Your task to perform on an android device: Play the latest video from the Washington Post Image 0: 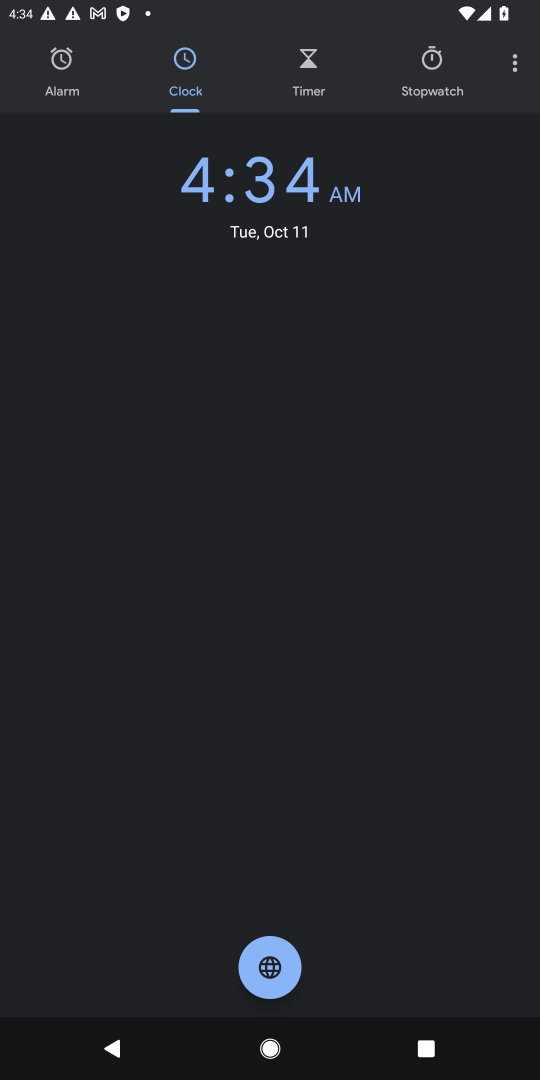
Step 0: press home button
Your task to perform on an android device: Play the latest video from the Washington Post Image 1: 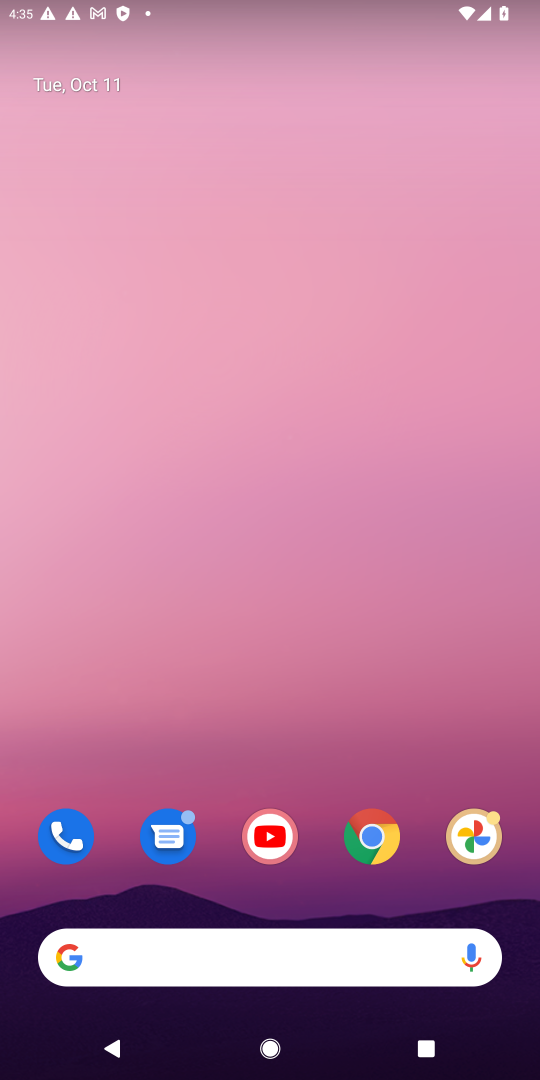
Step 1: click (266, 850)
Your task to perform on an android device: Play the latest video from the Washington Post Image 2: 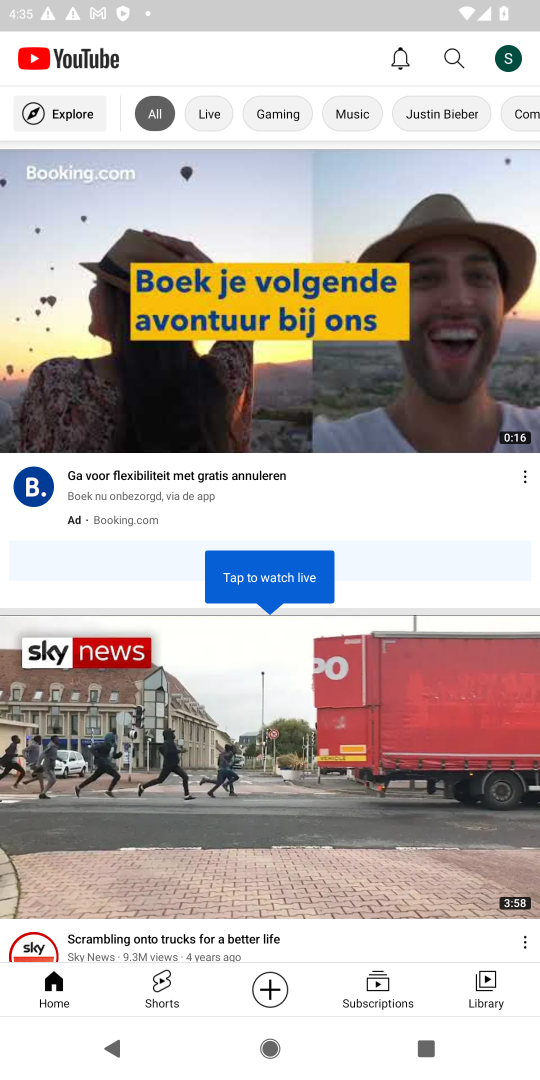
Step 2: click (467, 41)
Your task to perform on an android device: Play the latest video from the Washington Post Image 3: 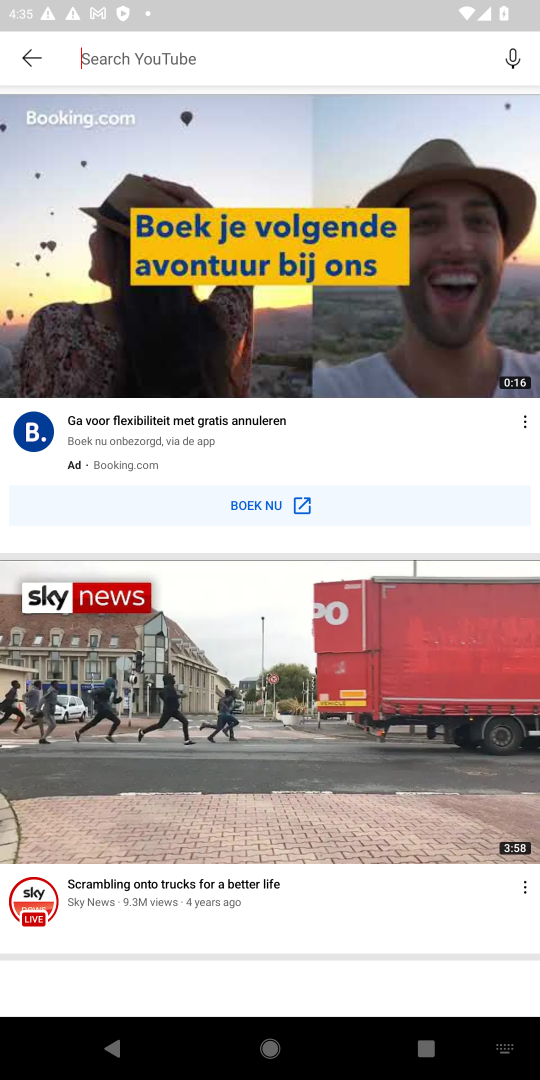
Step 3: click (455, 57)
Your task to perform on an android device: Play the latest video from the Washington Post Image 4: 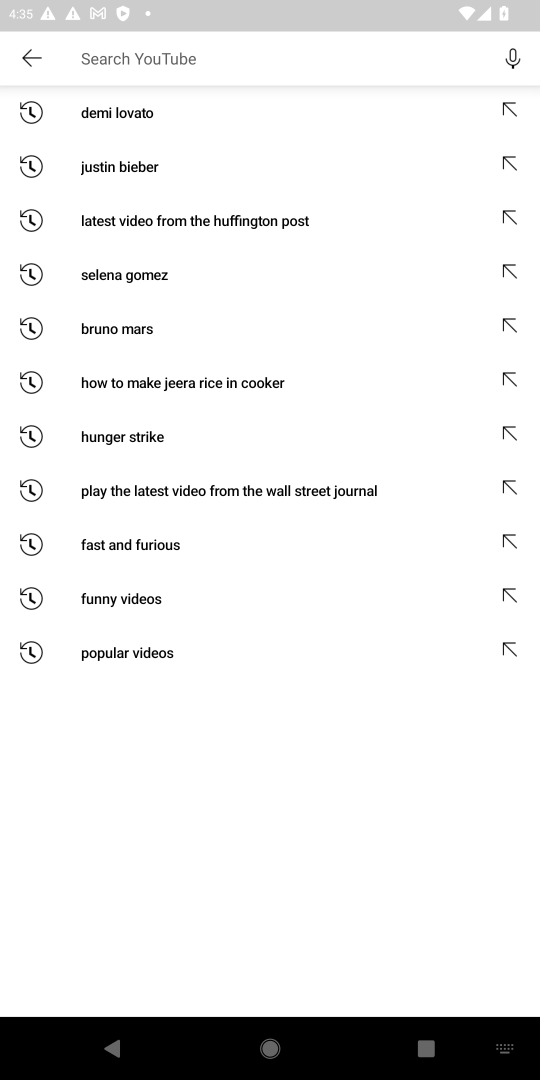
Step 4: click (386, 1075)
Your task to perform on an android device: Play the latest video from the Washington Post Image 5: 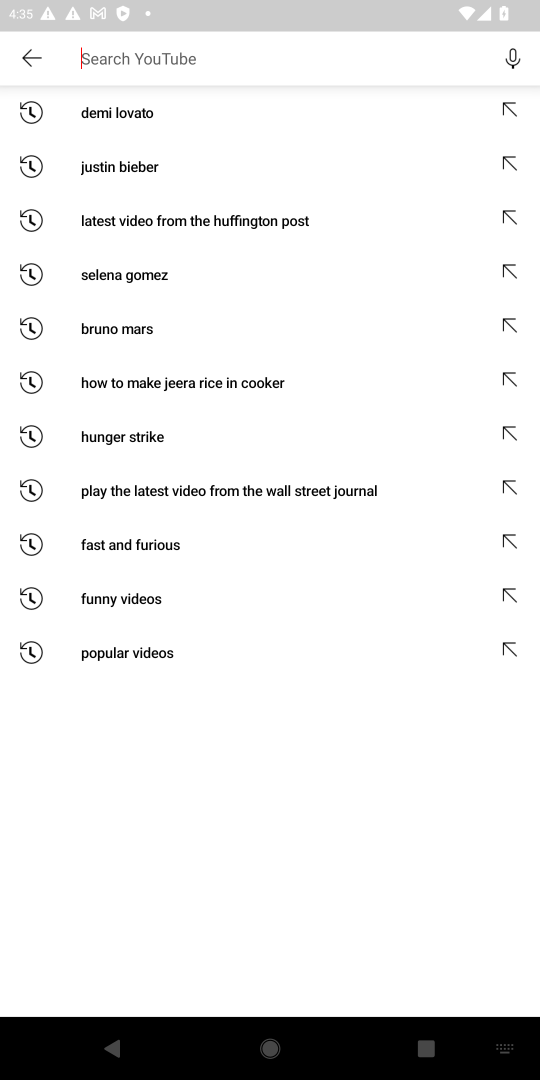
Step 5: type "latest video from the Washington Post"
Your task to perform on an android device: Play the latest video from the Washington Post Image 6: 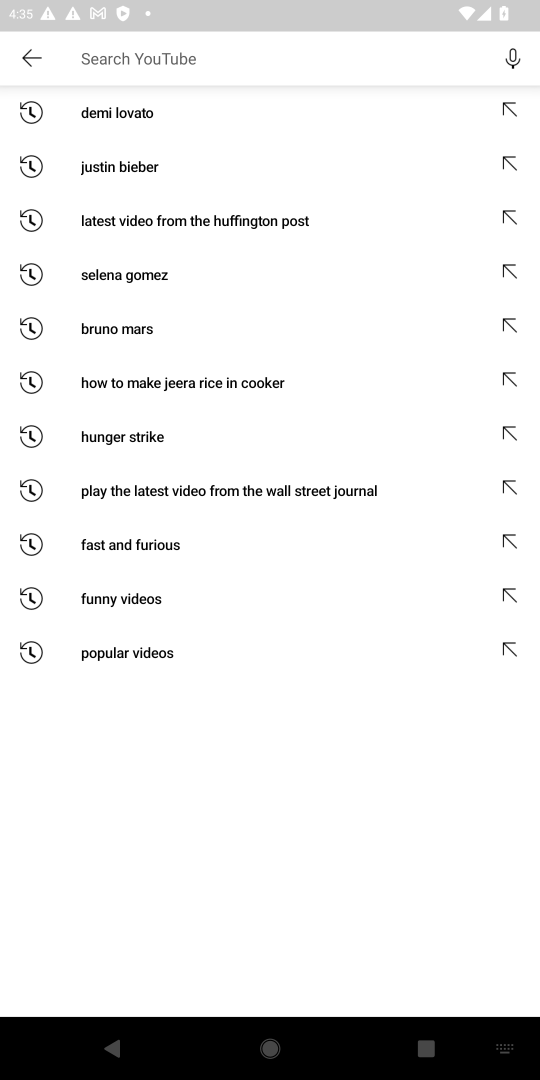
Step 6: click (504, 459)
Your task to perform on an android device: Play the latest video from the Washington Post Image 7: 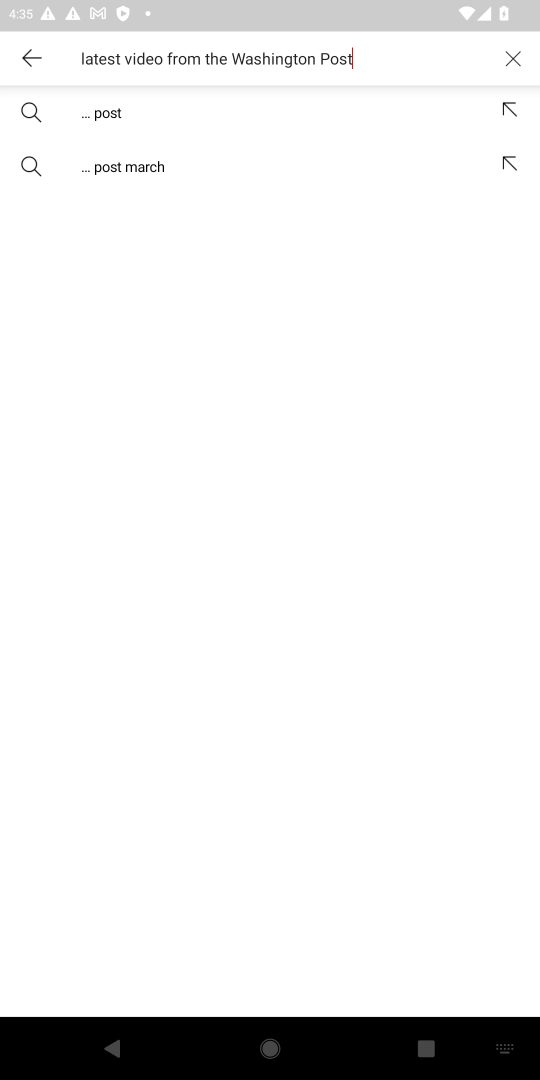
Step 7: press enter
Your task to perform on an android device: Play the latest video from the Washington Post Image 8: 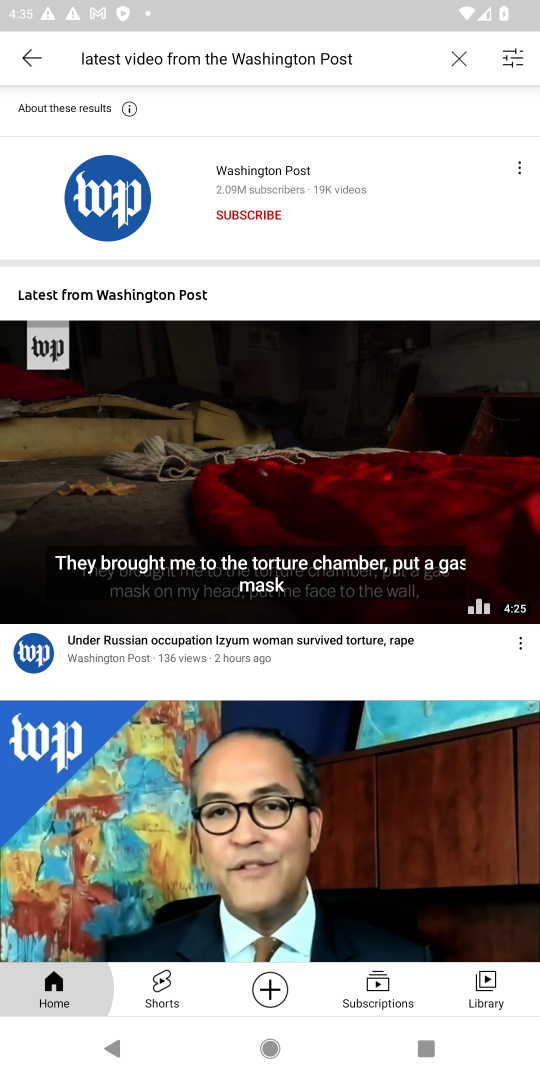
Step 8: drag from (90, 843) to (358, 315)
Your task to perform on an android device: Play the latest video from the Washington Post Image 9: 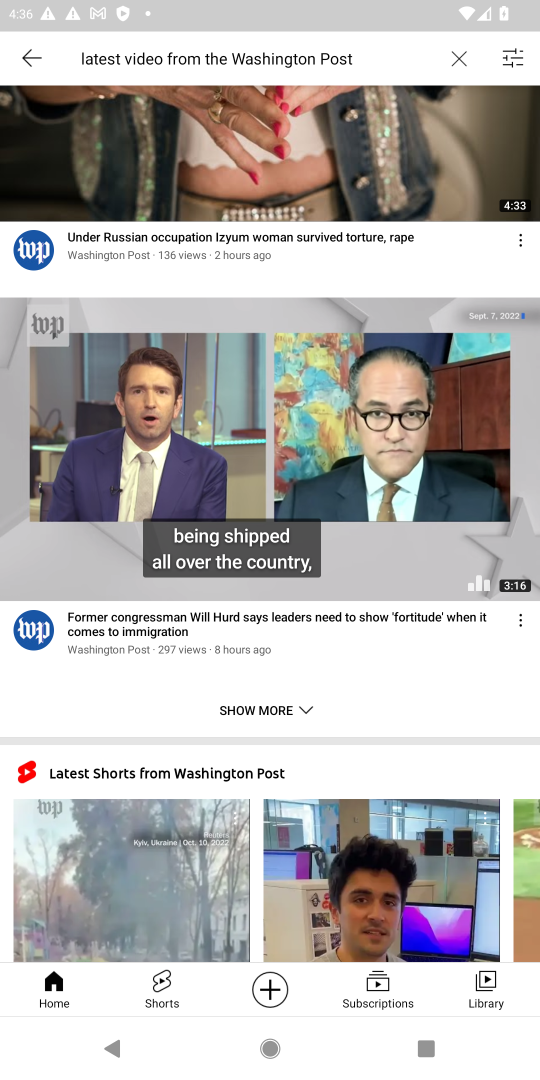
Step 9: drag from (216, 771) to (435, 120)
Your task to perform on an android device: Play the latest video from the Washington Post Image 10: 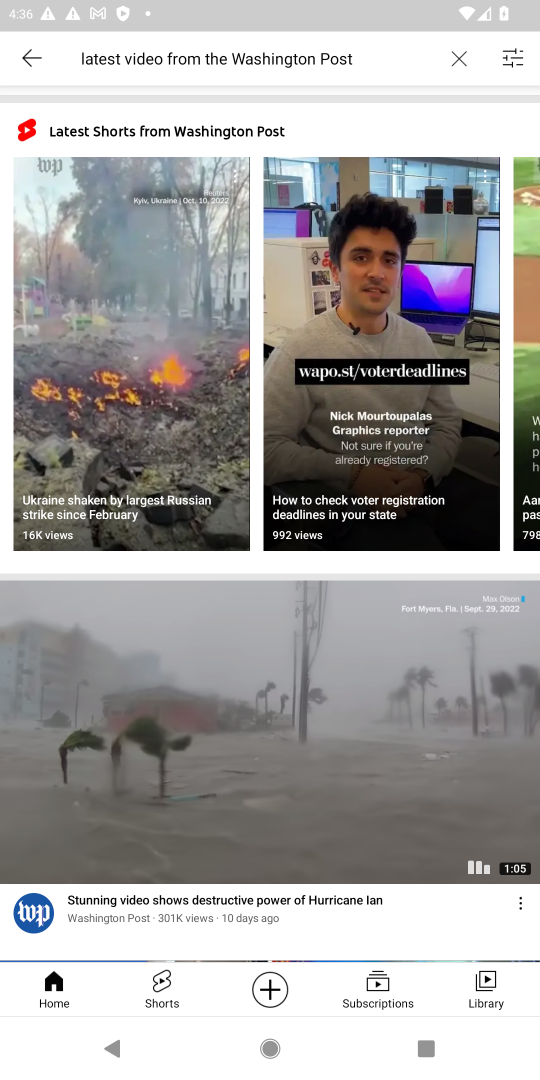
Step 10: drag from (328, 848) to (379, 737)
Your task to perform on an android device: Play the latest video from the Washington Post Image 11: 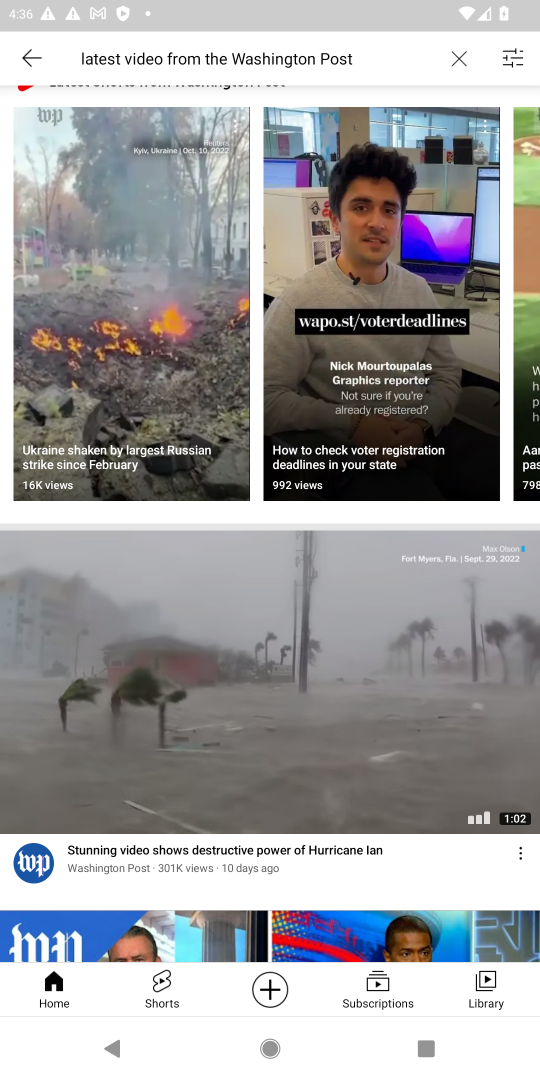
Step 11: click (163, 693)
Your task to perform on an android device: Play the latest video from the Washington Post Image 12: 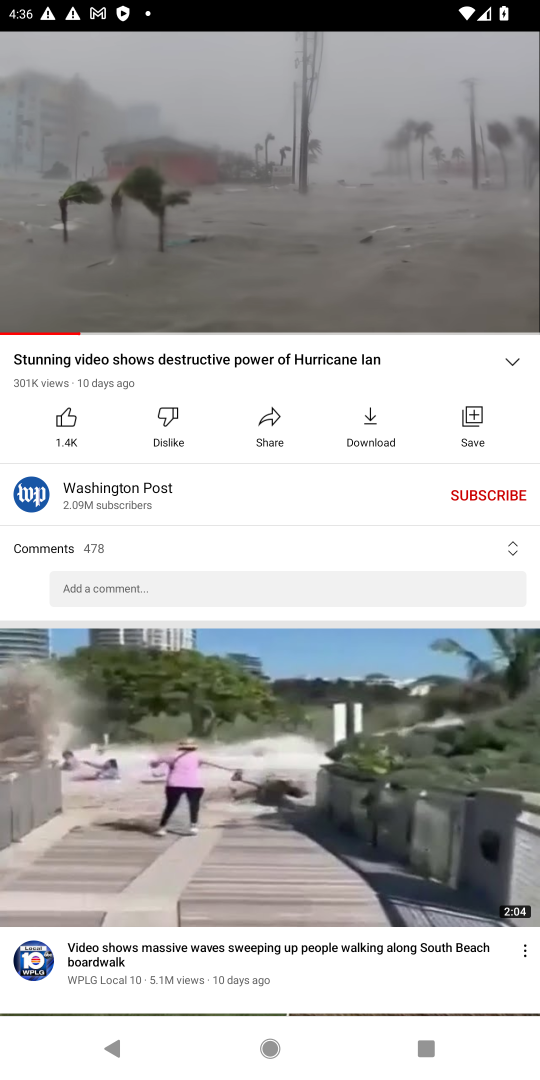
Step 12: click (243, 121)
Your task to perform on an android device: Play the latest video from the Washington Post Image 13: 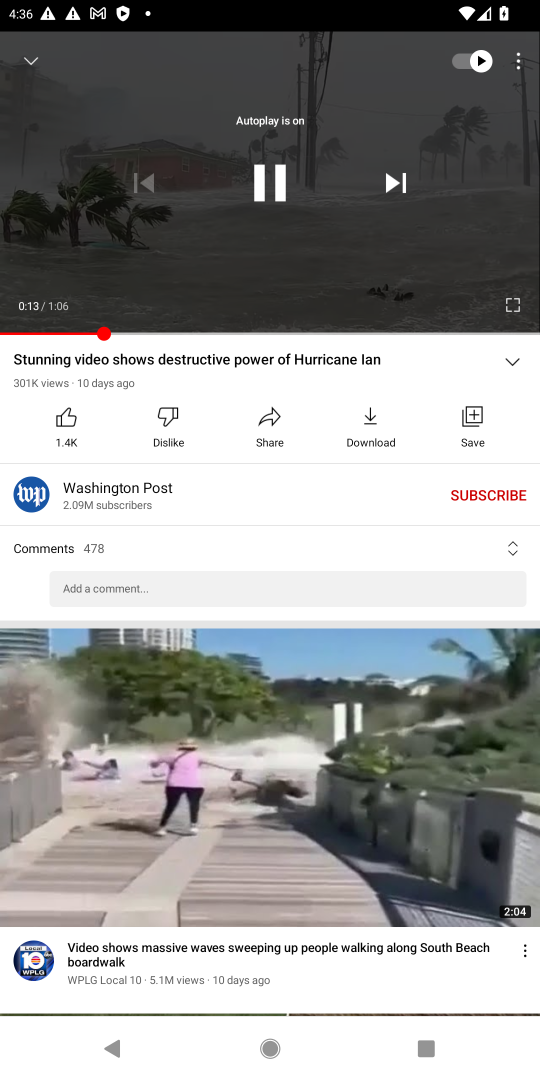
Step 13: click (255, 175)
Your task to perform on an android device: Play the latest video from the Washington Post Image 14: 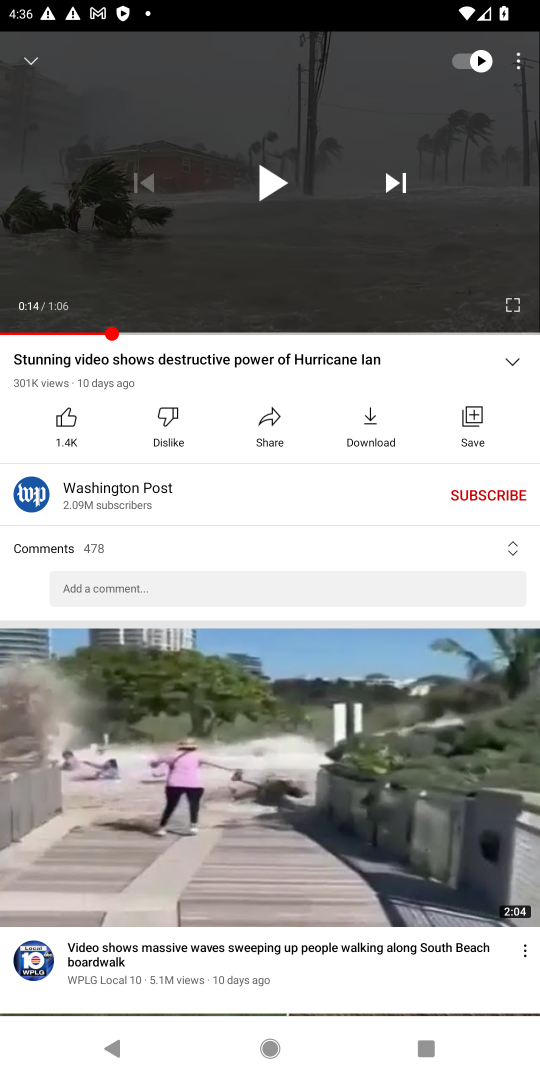
Step 14: task complete